Your task to perform on an android device: Open battery settings Image 0: 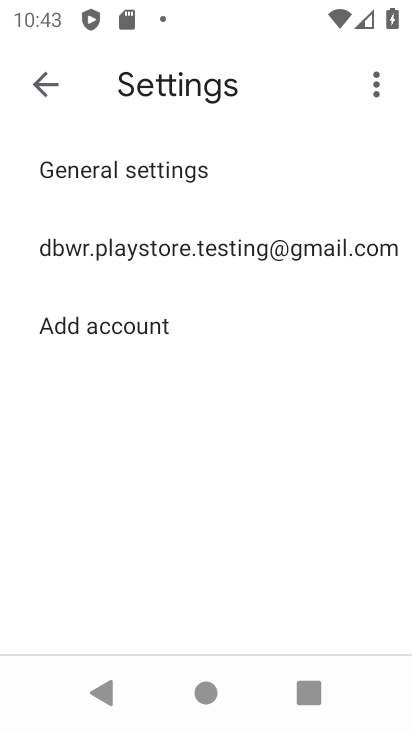
Step 0: press home button
Your task to perform on an android device: Open battery settings Image 1: 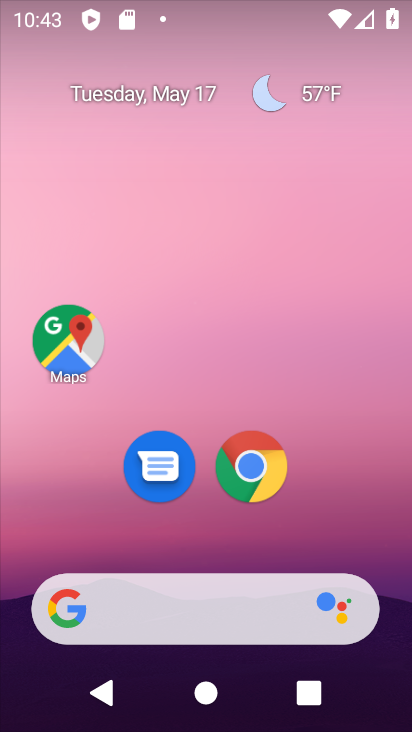
Step 1: click (257, 466)
Your task to perform on an android device: Open battery settings Image 2: 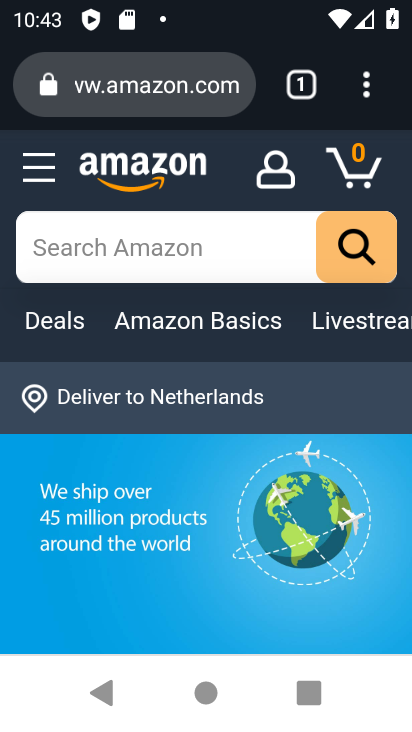
Step 2: task complete